Your task to perform on an android device: turn off wifi Image 0: 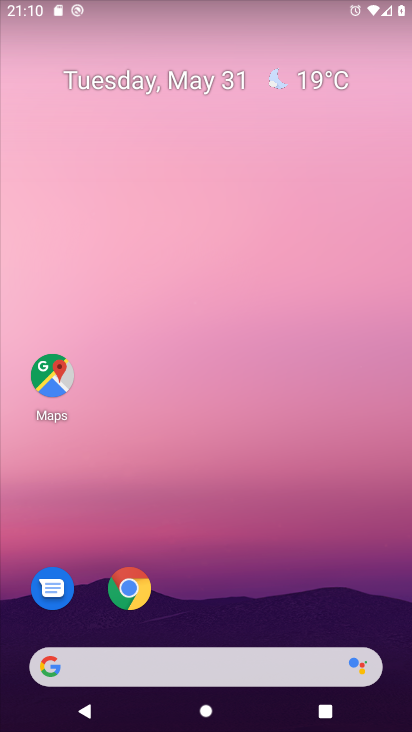
Step 0: press home button
Your task to perform on an android device: turn off wifi Image 1: 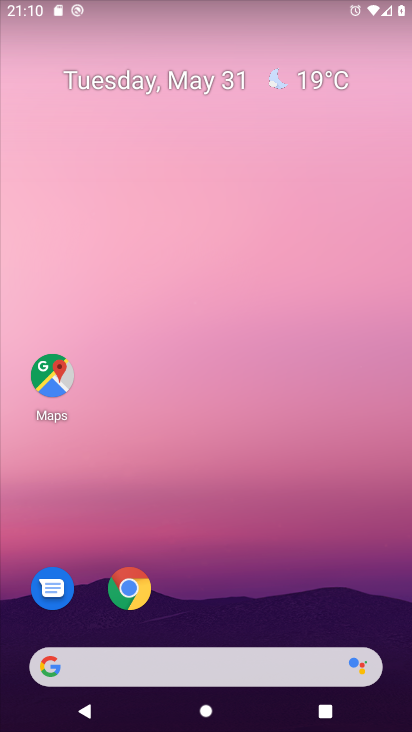
Step 1: drag from (144, 670) to (321, 33)
Your task to perform on an android device: turn off wifi Image 2: 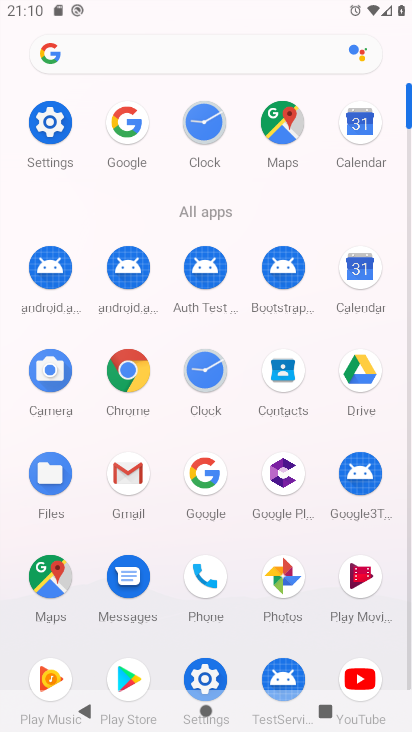
Step 2: click (43, 125)
Your task to perform on an android device: turn off wifi Image 3: 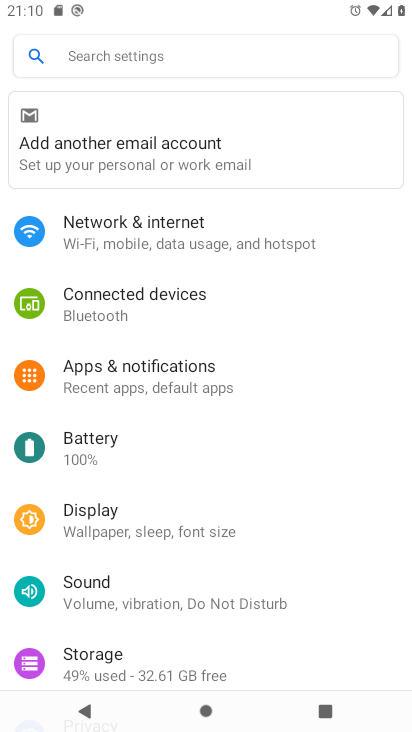
Step 3: click (163, 226)
Your task to perform on an android device: turn off wifi Image 4: 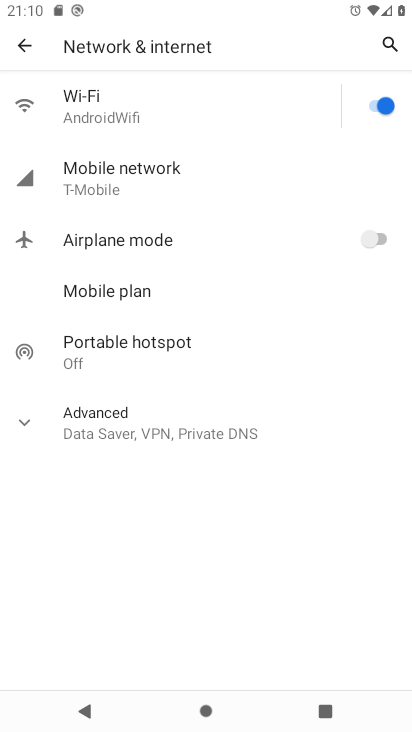
Step 4: click (375, 107)
Your task to perform on an android device: turn off wifi Image 5: 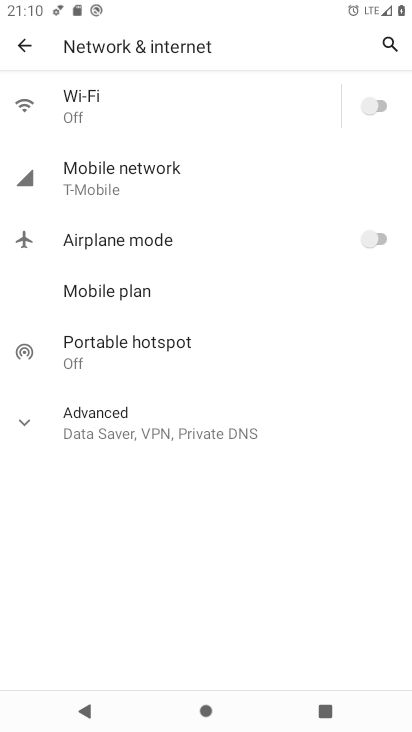
Step 5: task complete